Your task to perform on an android device: Open the map Image 0: 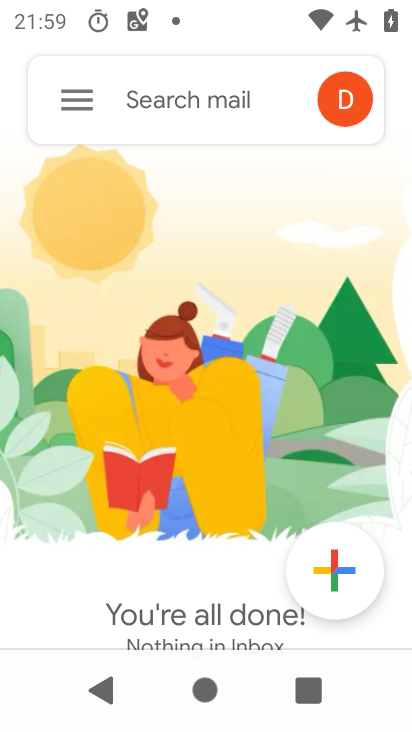
Step 0: press home button
Your task to perform on an android device: Open the map Image 1: 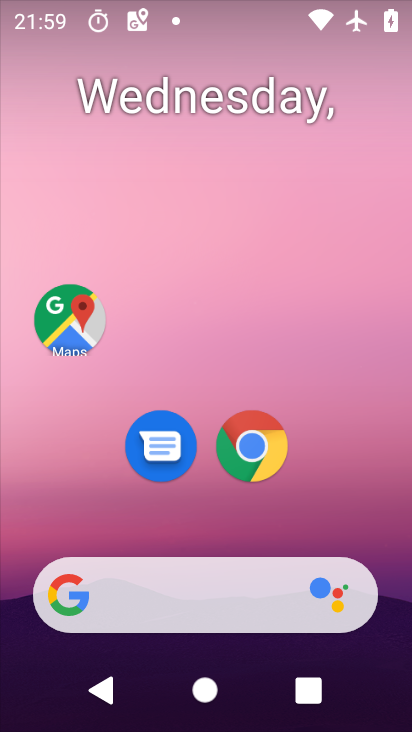
Step 1: click (72, 323)
Your task to perform on an android device: Open the map Image 2: 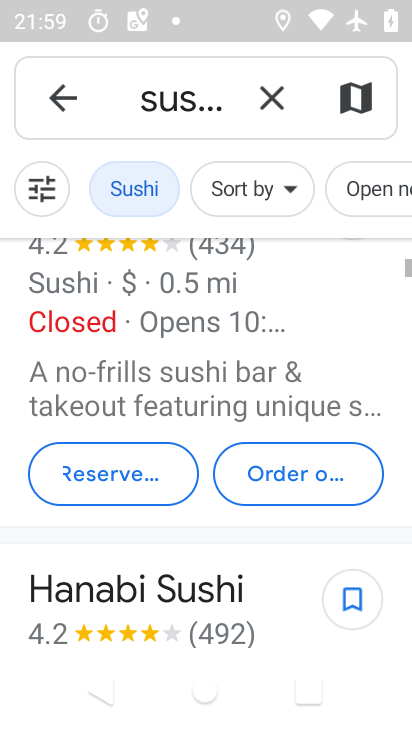
Step 2: click (66, 101)
Your task to perform on an android device: Open the map Image 3: 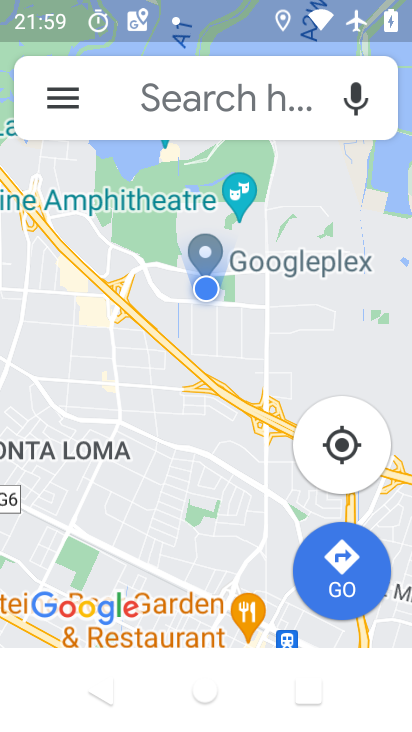
Step 3: task complete